Your task to perform on an android device: Go to wifi settings Image 0: 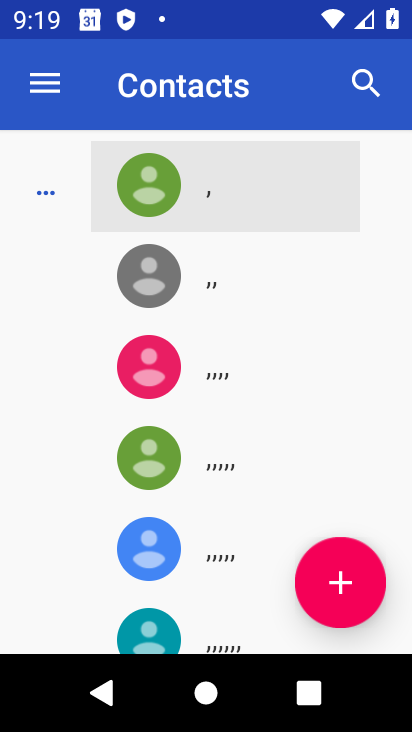
Step 0: press home button
Your task to perform on an android device: Go to wifi settings Image 1: 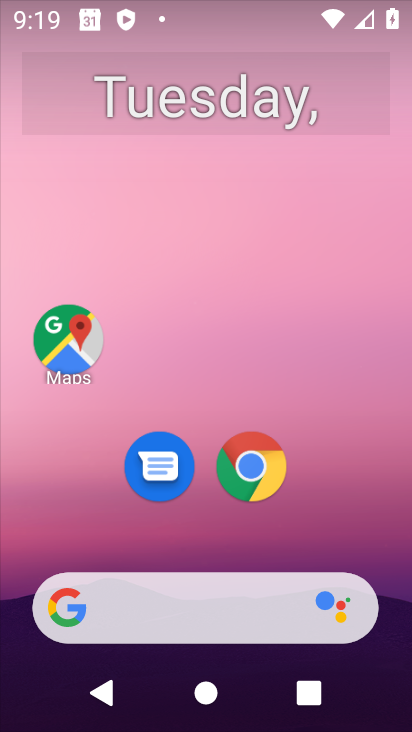
Step 1: drag from (369, 528) to (345, 37)
Your task to perform on an android device: Go to wifi settings Image 2: 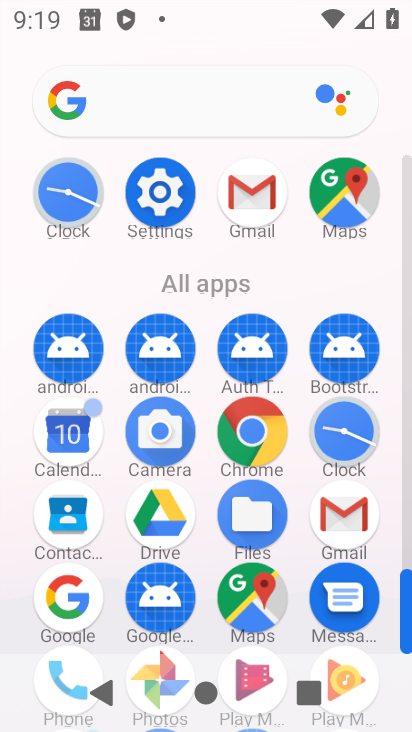
Step 2: click (174, 181)
Your task to perform on an android device: Go to wifi settings Image 3: 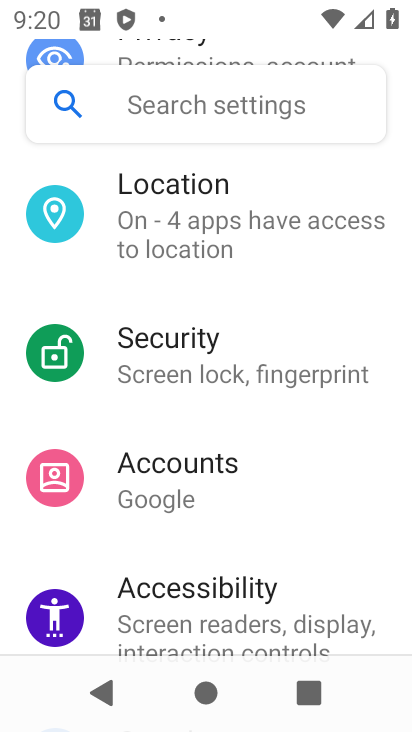
Step 3: drag from (266, 175) to (165, 581)
Your task to perform on an android device: Go to wifi settings Image 4: 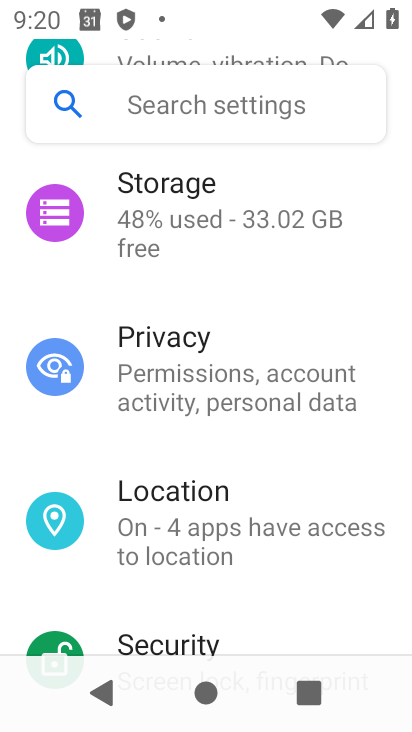
Step 4: drag from (197, 148) to (228, 558)
Your task to perform on an android device: Go to wifi settings Image 5: 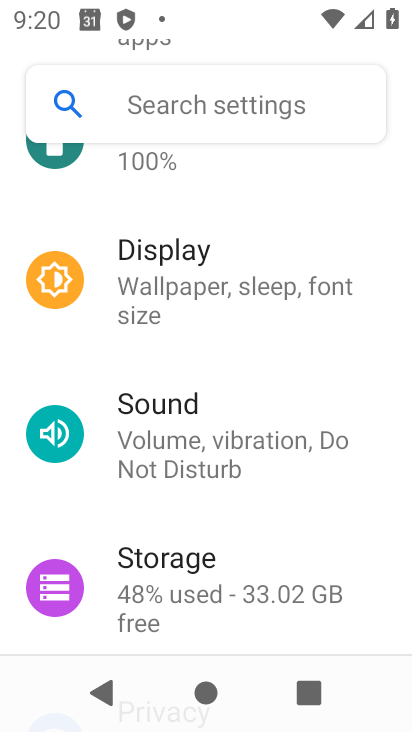
Step 5: drag from (243, 176) to (182, 650)
Your task to perform on an android device: Go to wifi settings Image 6: 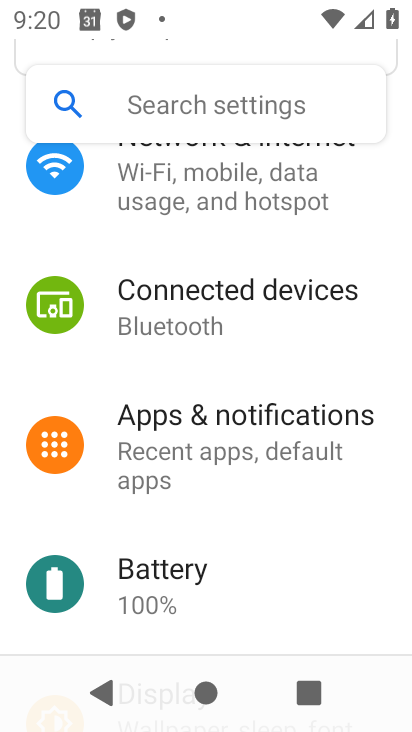
Step 6: drag from (216, 203) to (192, 578)
Your task to perform on an android device: Go to wifi settings Image 7: 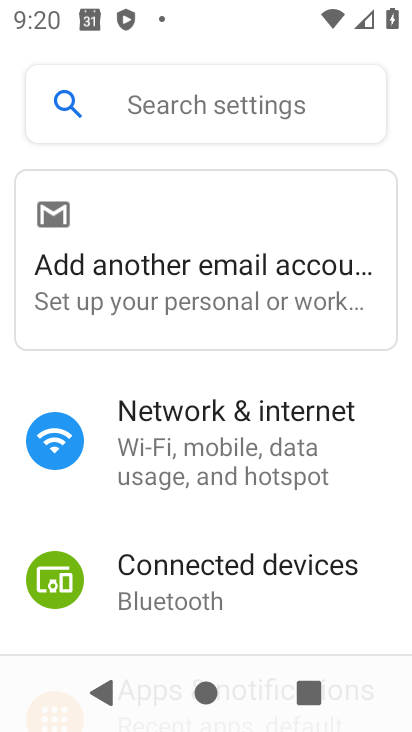
Step 7: click (164, 442)
Your task to perform on an android device: Go to wifi settings Image 8: 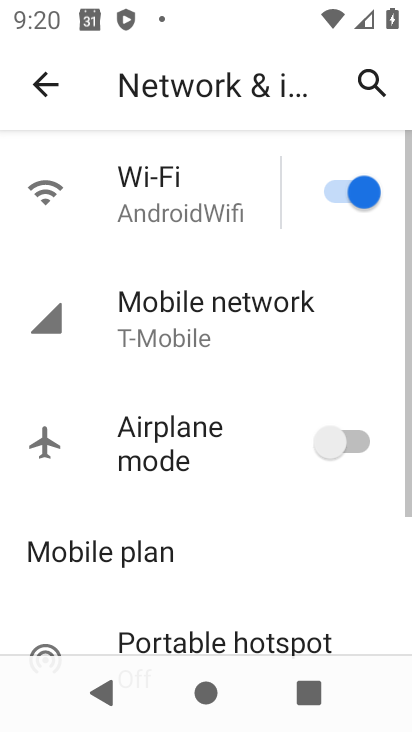
Step 8: click (168, 193)
Your task to perform on an android device: Go to wifi settings Image 9: 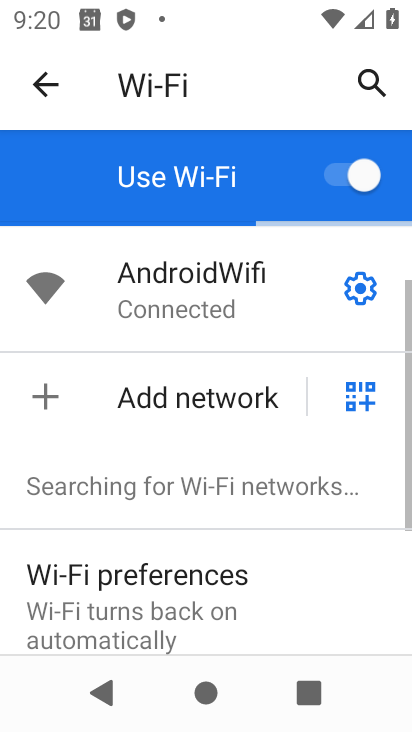
Step 9: click (365, 285)
Your task to perform on an android device: Go to wifi settings Image 10: 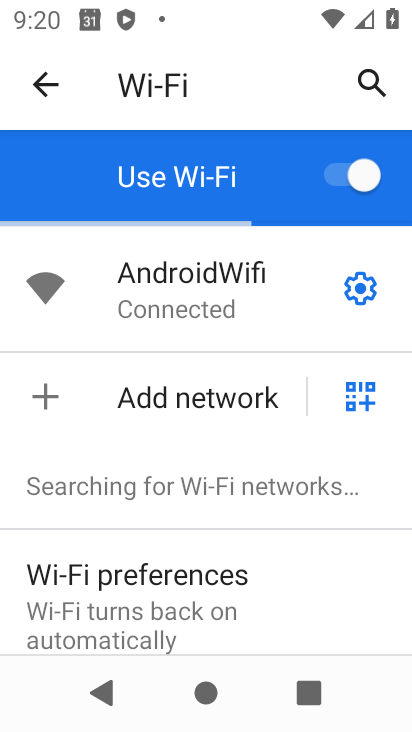
Step 10: click (362, 283)
Your task to perform on an android device: Go to wifi settings Image 11: 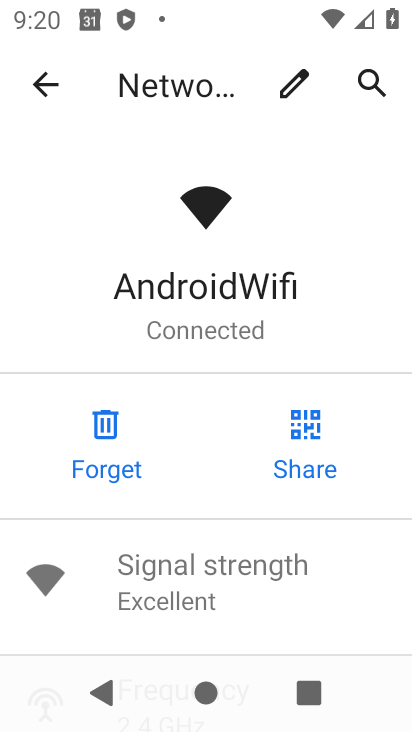
Step 11: task complete